Your task to perform on an android device: open sync settings in chrome Image 0: 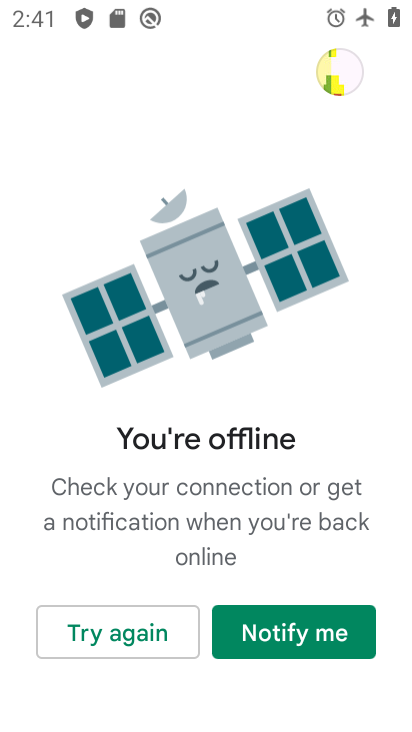
Step 0: press home button
Your task to perform on an android device: open sync settings in chrome Image 1: 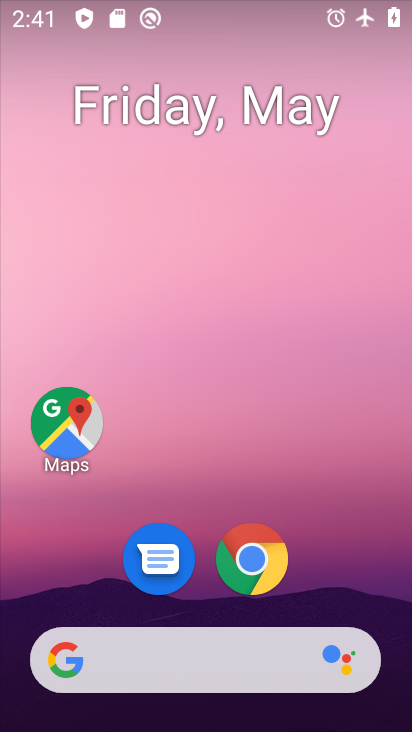
Step 1: drag from (332, 576) to (305, 285)
Your task to perform on an android device: open sync settings in chrome Image 2: 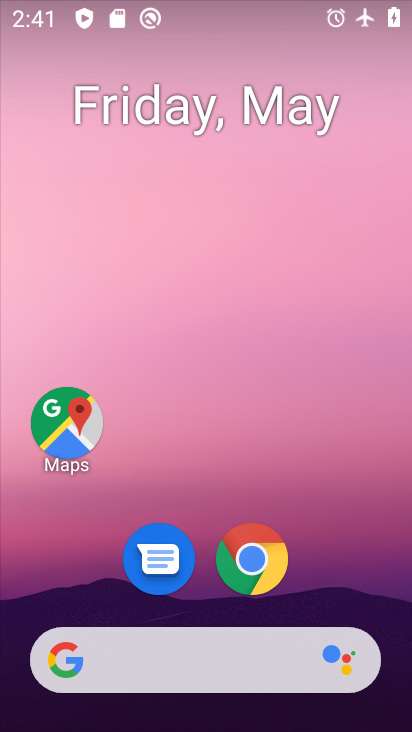
Step 2: drag from (313, 567) to (246, 104)
Your task to perform on an android device: open sync settings in chrome Image 3: 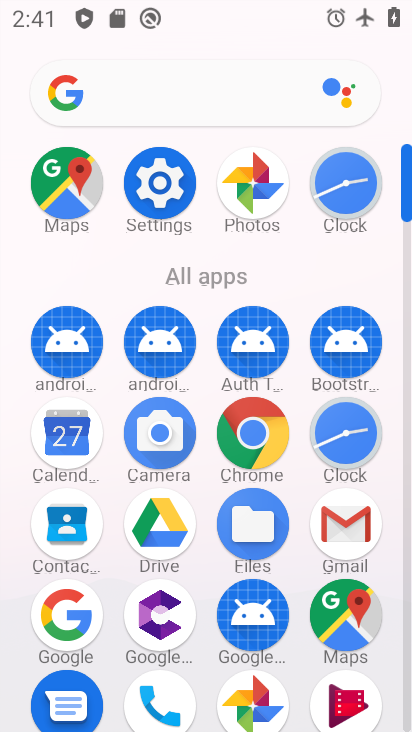
Step 3: click (255, 418)
Your task to perform on an android device: open sync settings in chrome Image 4: 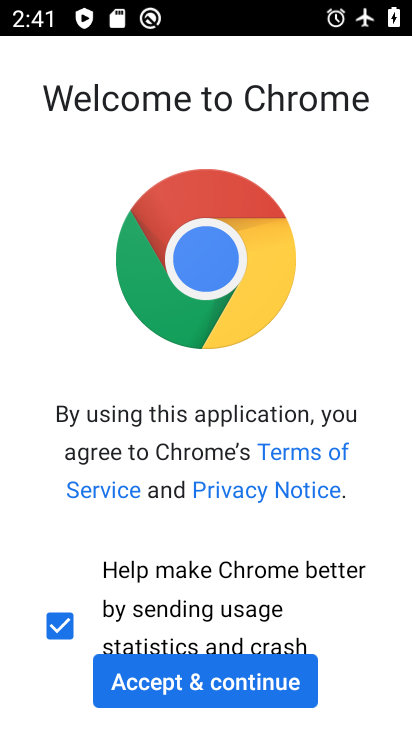
Step 4: click (206, 695)
Your task to perform on an android device: open sync settings in chrome Image 5: 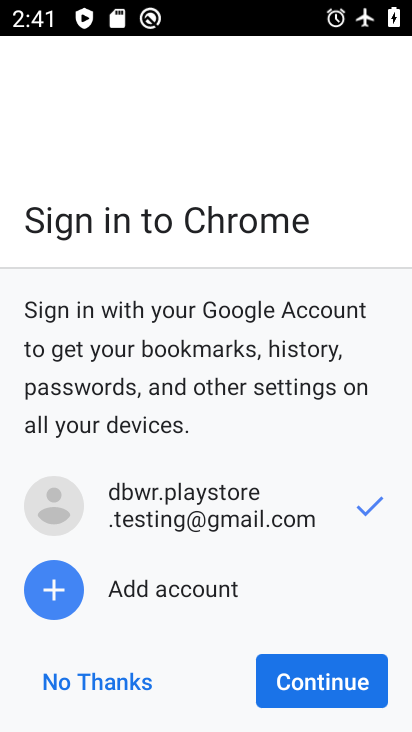
Step 5: click (270, 693)
Your task to perform on an android device: open sync settings in chrome Image 6: 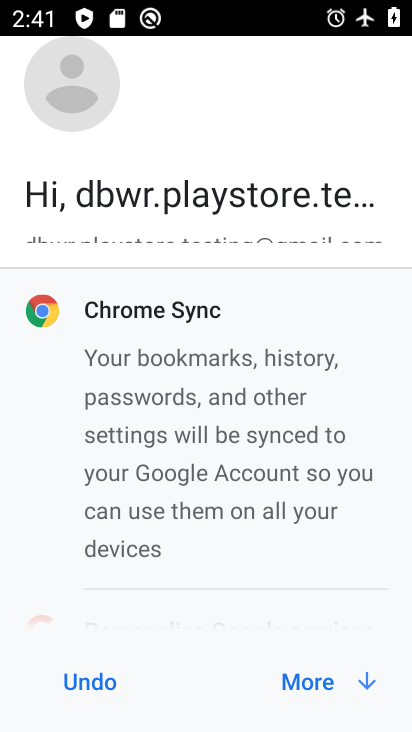
Step 6: click (299, 684)
Your task to perform on an android device: open sync settings in chrome Image 7: 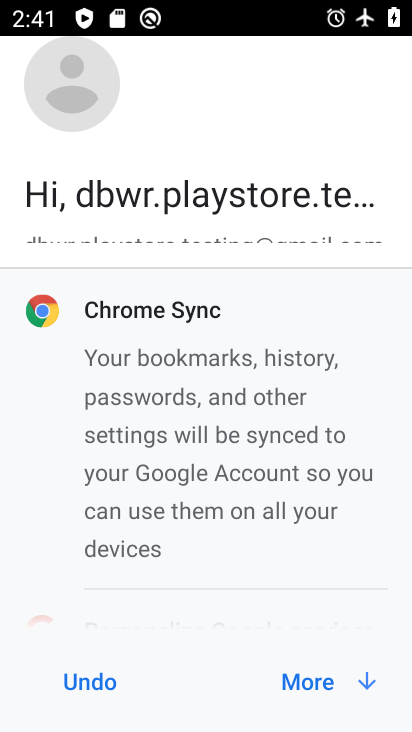
Step 7: click (299, 684)
Your task to perform on an android device: open sync settings in chrome Image 8: 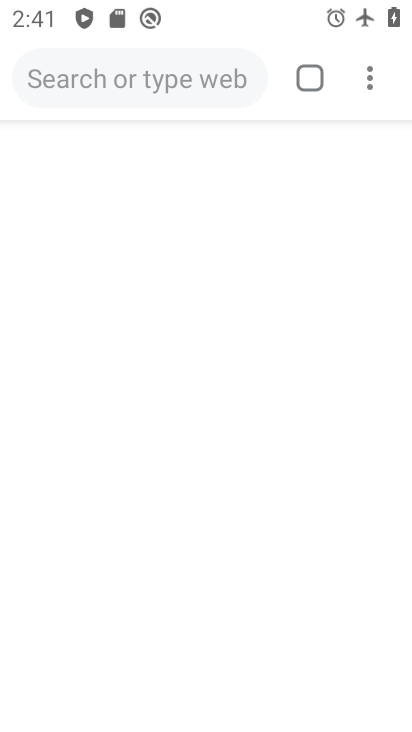
Step 8: click (299, 684)
Your task to perform on an android device: open sync settings in chrome Image 9: 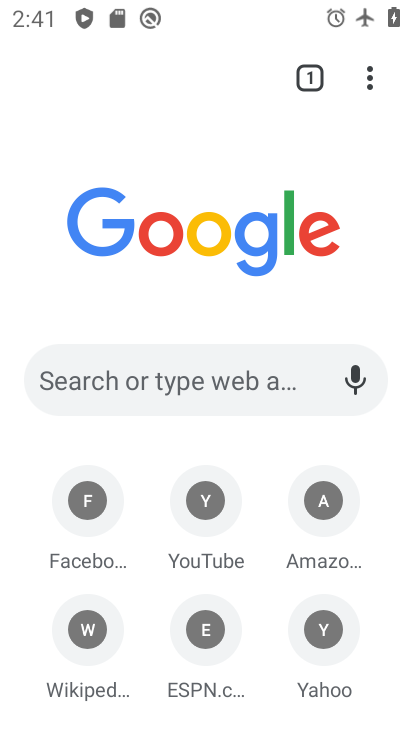
Step 9: click (367, 81)
Your task to perform on an android device: open sync settings in chrome Image 10: 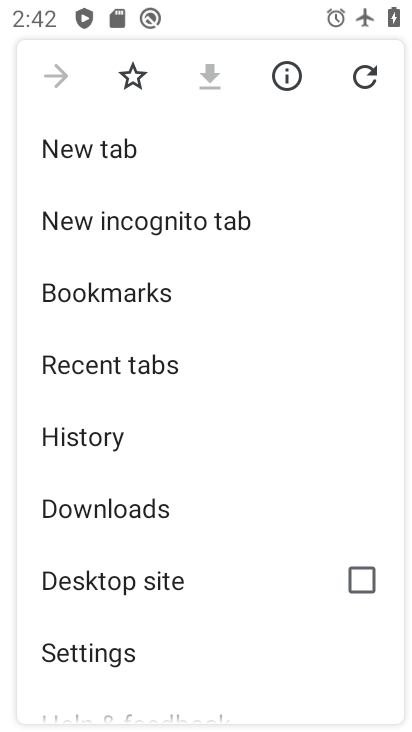
Step 10: click (115, 646)
Your task to perform on an android device: open sync settings in chrome Image 11: 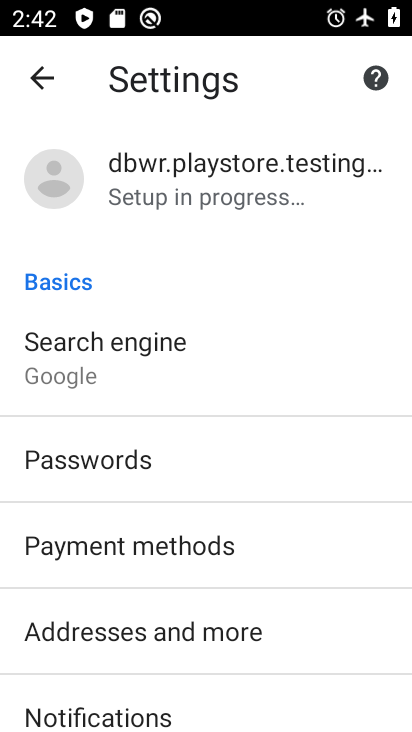
Step 11: click (163, 185)
Your task to perform on an android device: open sync settings in chrome Image 12: 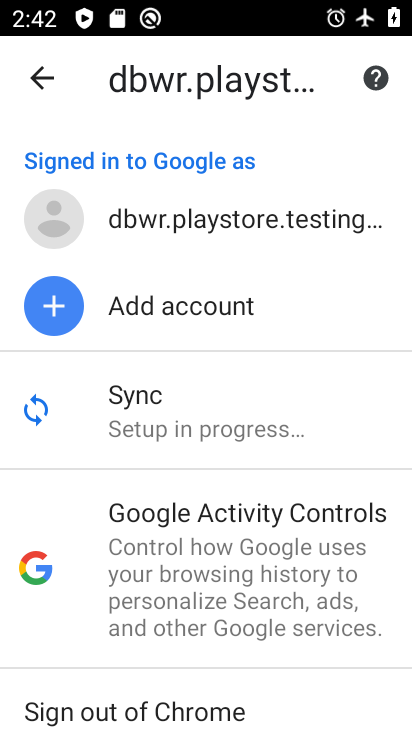
Step 12: click (283, 424)
Your task to perform on an android device: open sync settings in chrome Image 13: 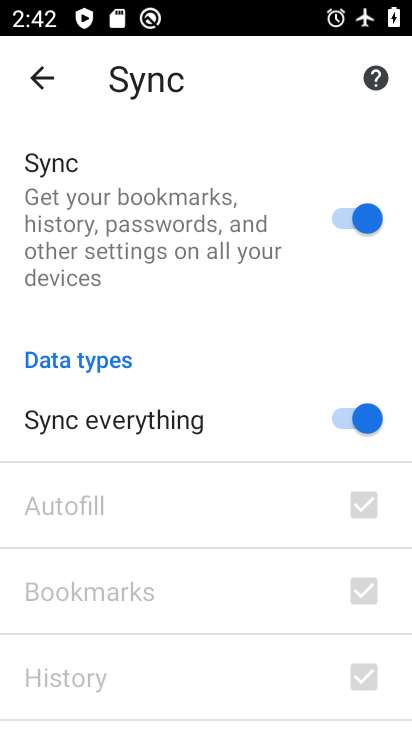
Step 13: task complete